Your task to perform on an android device: toggle airplane mode Image 0: 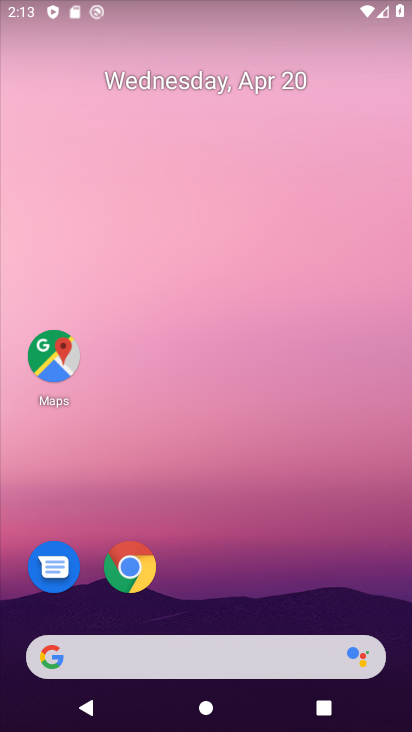
Step 0: drag from (246, 531) to (227, 73)
Your task to perform on an android device: toggle airplane mode Image 1: 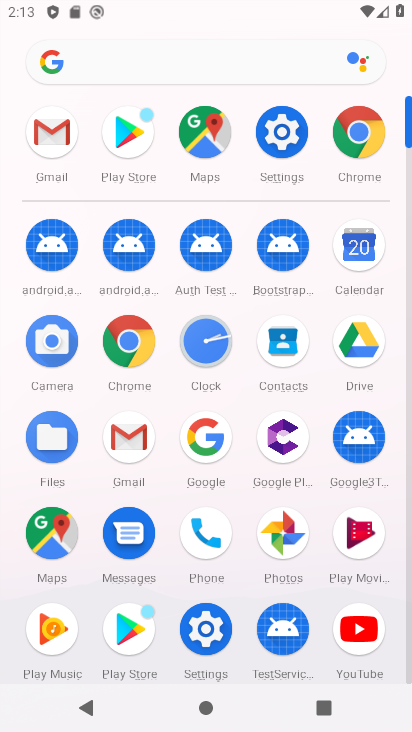
Step 1: click (273, 137)
Your task to perform on an android device: toggle airplane mode Image 2: 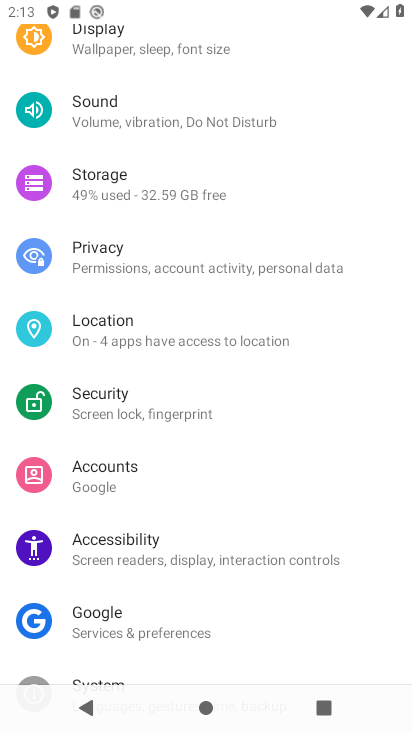
Step 2: drag from (240, 55) to (293, 494)
Your task to perform on an android device: toggle airplane mode Image 3: 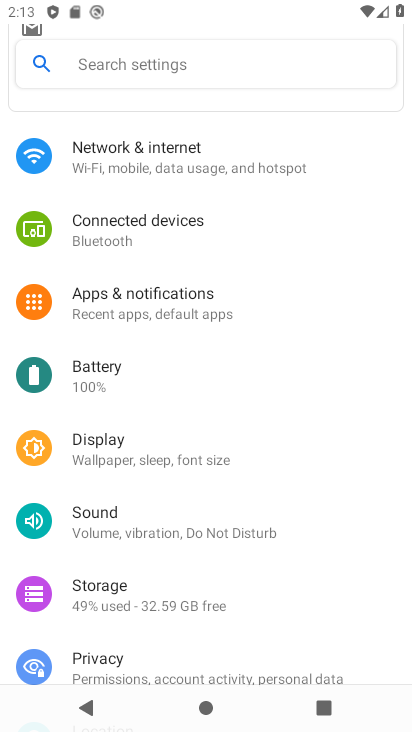
Step 3: click (201, 176)
Your task to perform on an android device: toggle airplane mode Image 4: 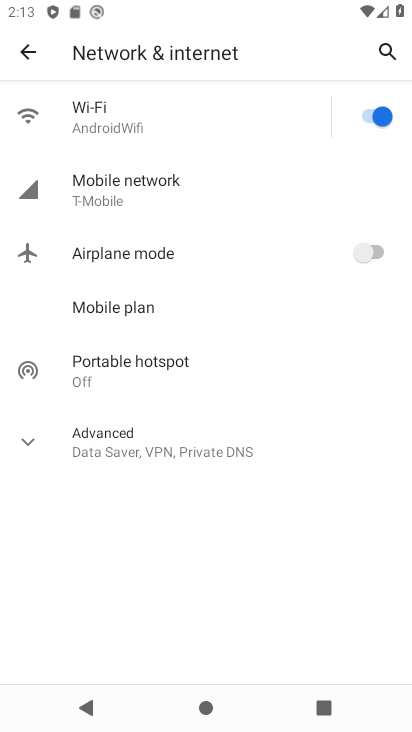
Step 4: click (359, 253)
Your task to perform on an android device: toggle airplane mode Image 5: 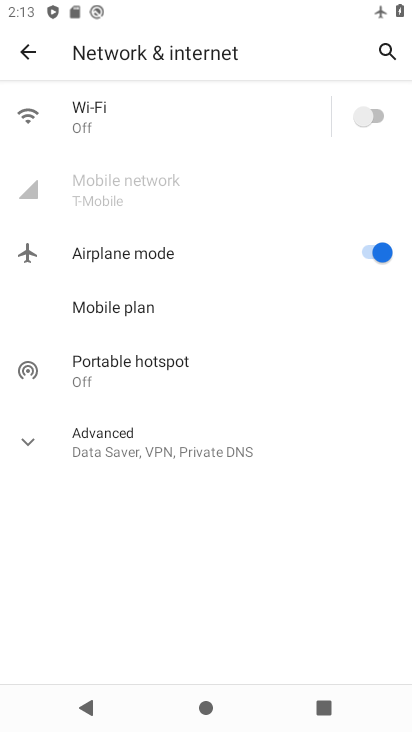
Step 5: task complete